Your task to perform on an android device: turn off translation in the chrome app Image 0: 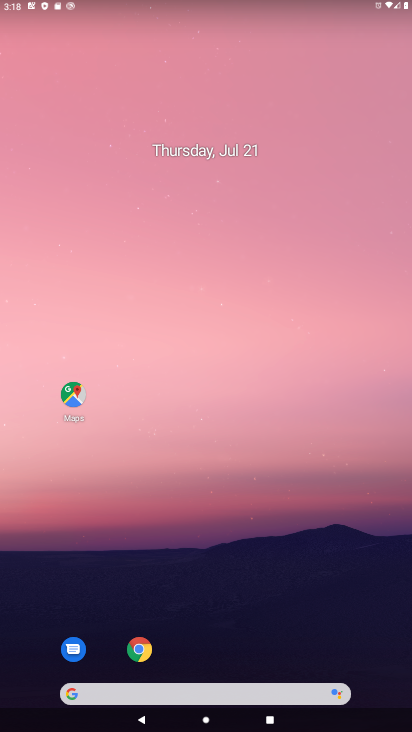
Step 0: drag from (258, 662) to (302, 151)
Your task to perform on an android device: turn off translation in the chrome app Image 1: 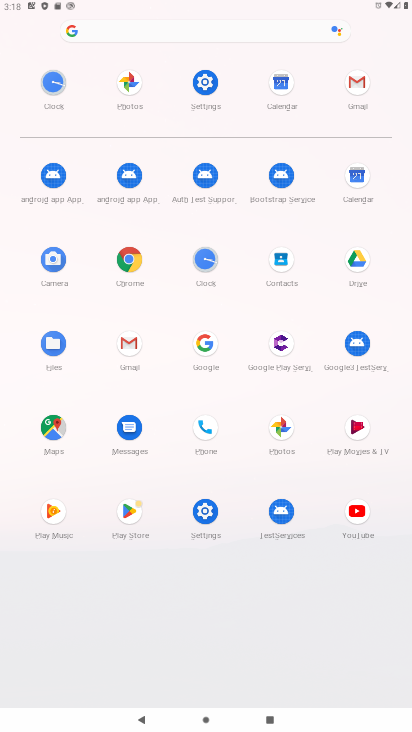
Step 1: click (140, 271)
Your task to perform on an android device: turn off translation in the chrome app Image 2: 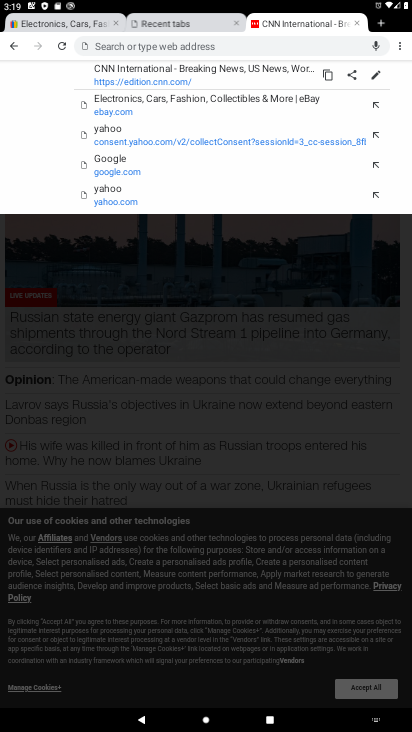
Step 2: click (232, 75)
Your task to perform on an android device: turn off translation in the chrome app Image 3: 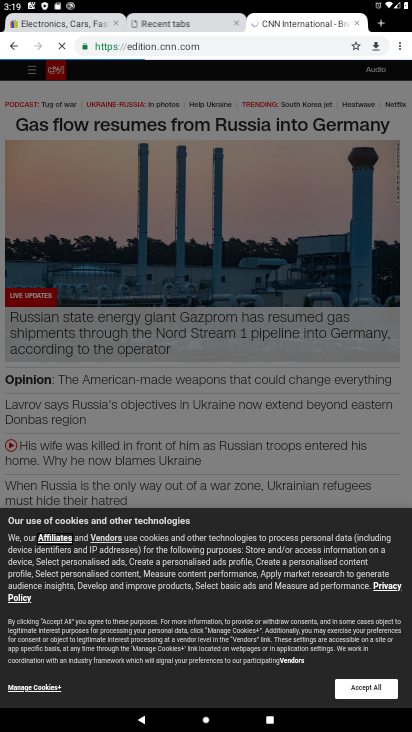
Step 3: task complete